Your task to perform on an android device: Open the web browser Image 0: 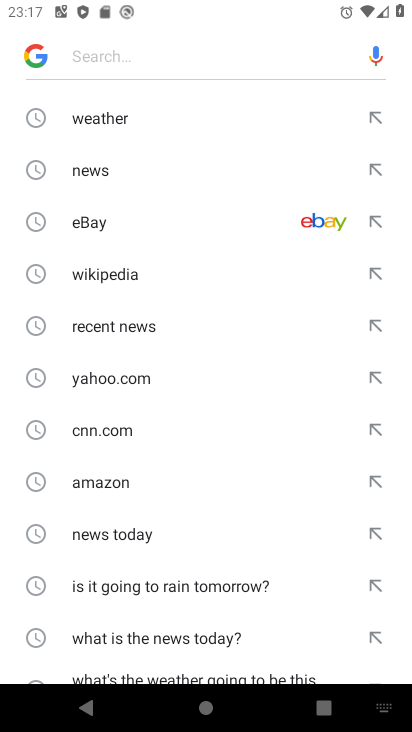
Step 0: press home button
Your task to perform on an android device: Open the web browser Image 1: 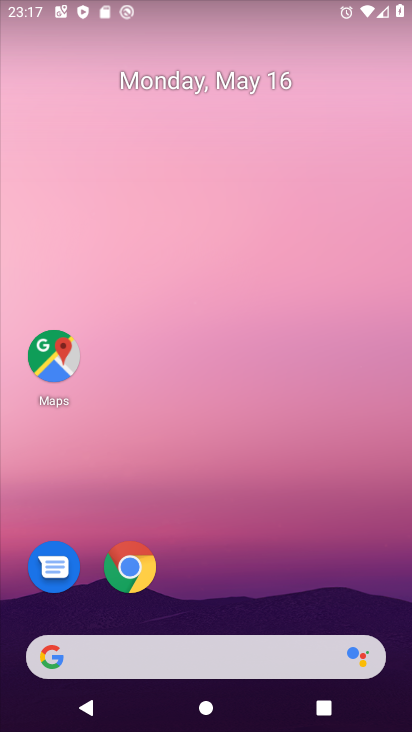
Step 1: click (129, 563)
Your task to perform on an android device: Open the web browser Image 2: 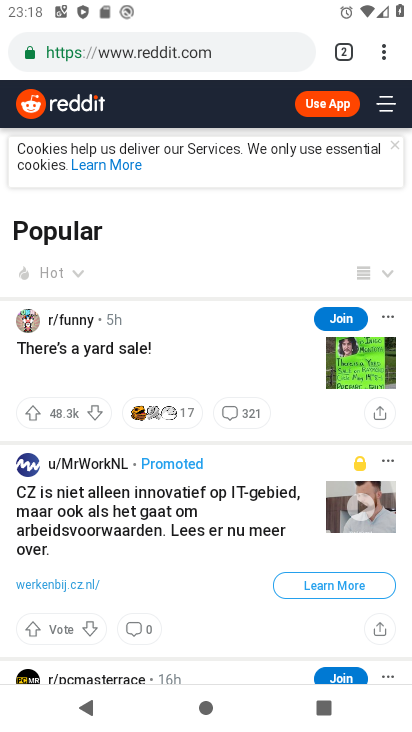
Step 2: task complete